Your task to perform on an android device: Open the phone app and click the voicemail tab. Image 0: 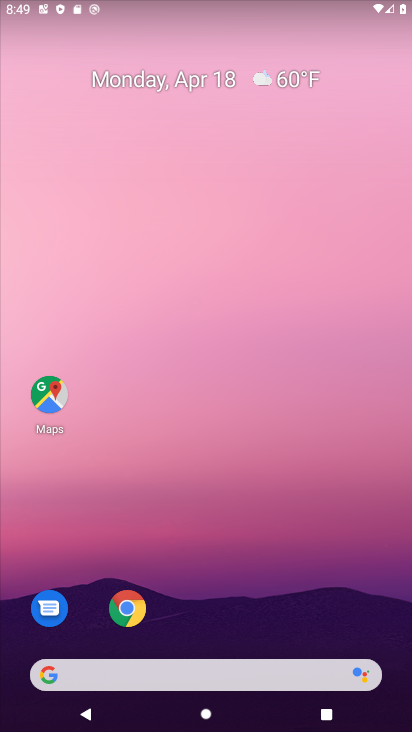
Step 0: click (308, 129)
Your task to perform on an android device: Open the phone app and click the voicemail tab. Image 1: 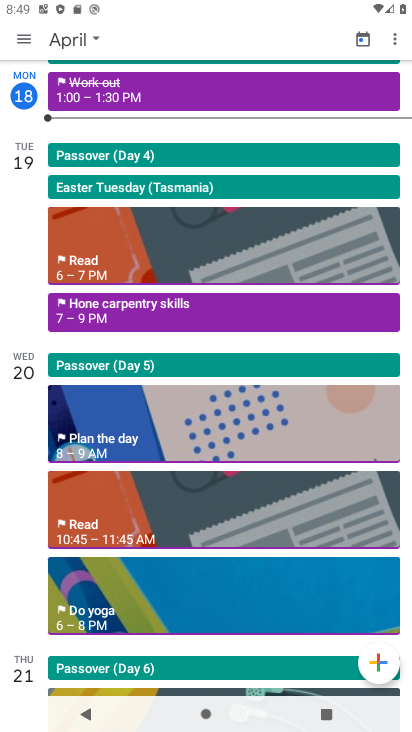
Step 1: press home button
Your task to perform on an android device: Open the phone app and click the voicemail tab. Image 2: 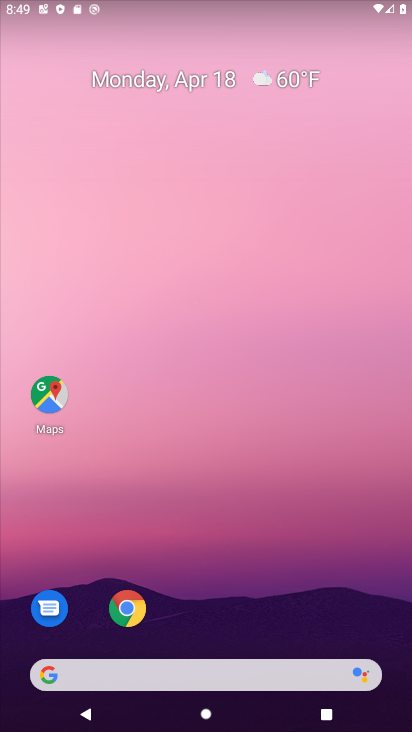
Step 2: drag from (184, 626) to (250, 128)
Your task to perform on an android device: Open the phone app and click the voicemail tab. Image 3: 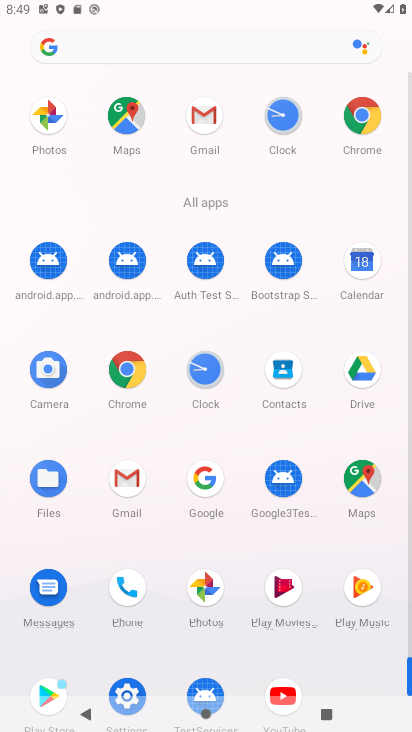
Step 3: click (110, 597)
Your task to perform on an android device: Open the phone app and click the voicemail tab. Image 4: 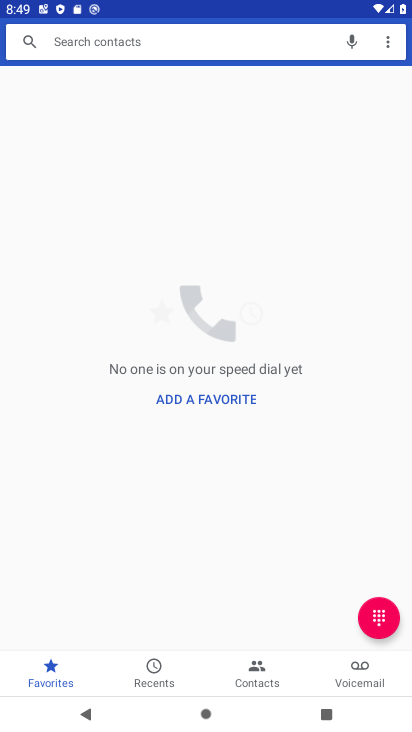
Step 4: click (196, 451)
Your task to perform on an android device: Open the phone app and click the voicemail tab. Image 5: 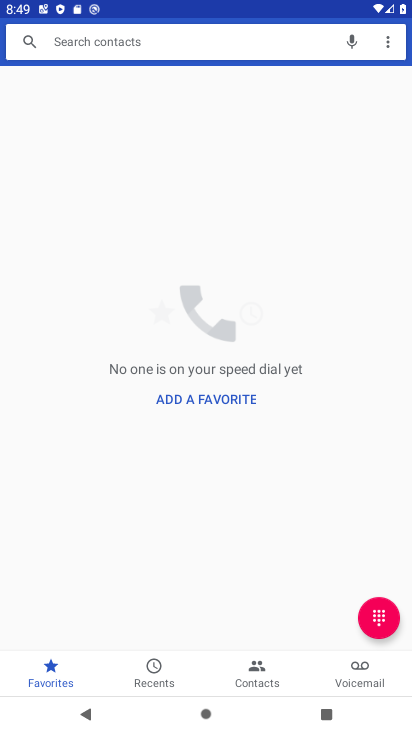
Step 5: click (367, 677)
Your task to perform on an android device: Open the phone app and click the voicemail tab. Image 6: 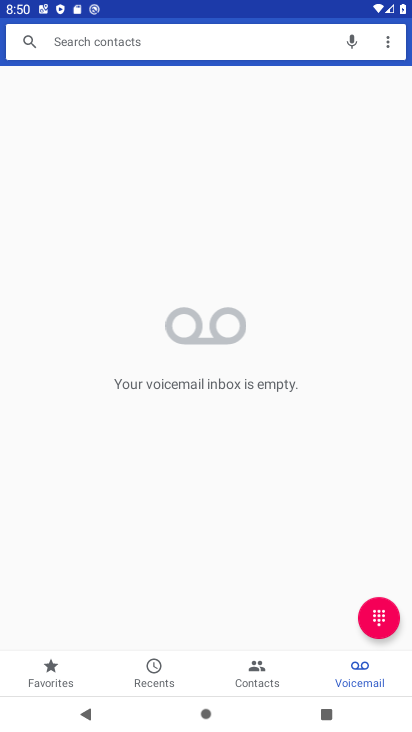
Step 6: drag from (259, 598) to (359, 395)
Your task to perform on an android device: Open the phone app and click the voicemail tab. Image 7: 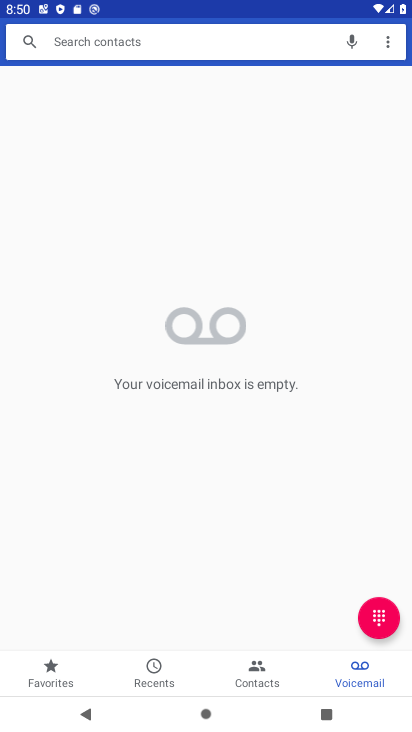
Step 7: drag from (133, 612) to (299, 201)
Your task to perform on an android device: Open the phone app and click the voicemail tab. Image 8: 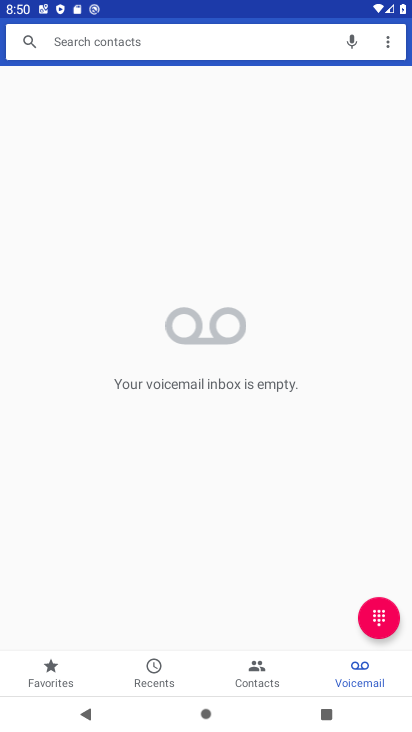
Step 8: drag from (205, 558) to (346, 331)
Your task to perform on an android device: Open the phone app and click the voicemail tab. Image 9: 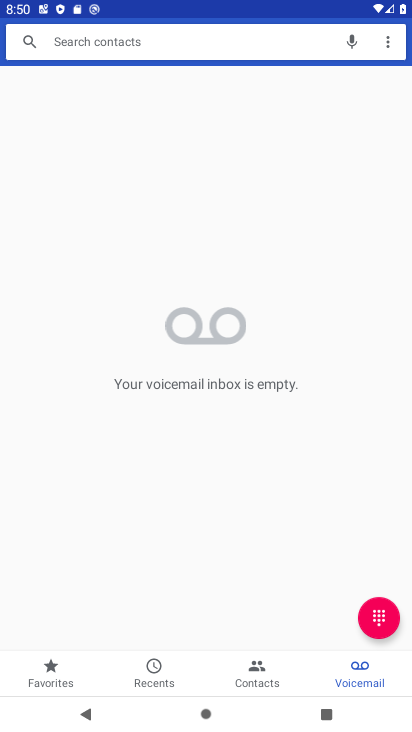
Step 9: click (317, 66)
Your task to perform on an android device: Open the phone app and click the voicemail tab. Image 10: 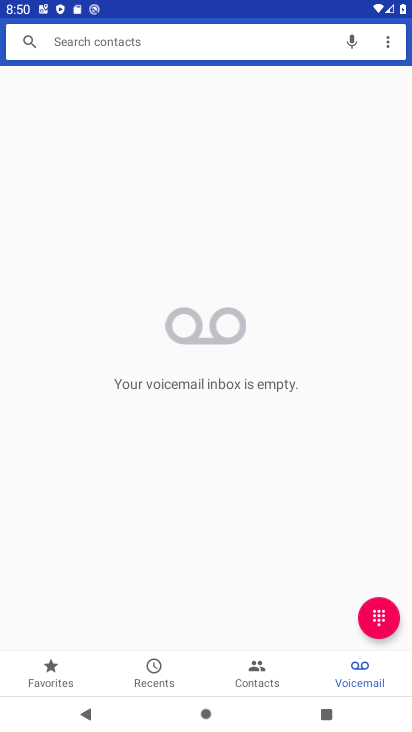
Step 10: task complete